Your task to perform on an android device: turn pop-ups on in chrome Image 0: 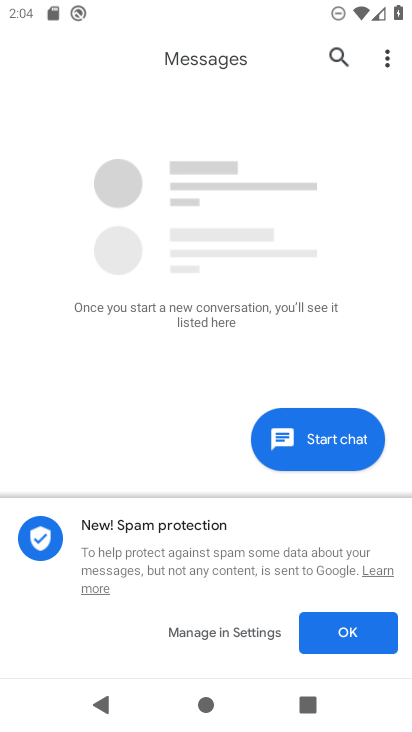
Step 0: press back button
Your task to perform on an android device: turn pop-ups on in chrome Image 1: 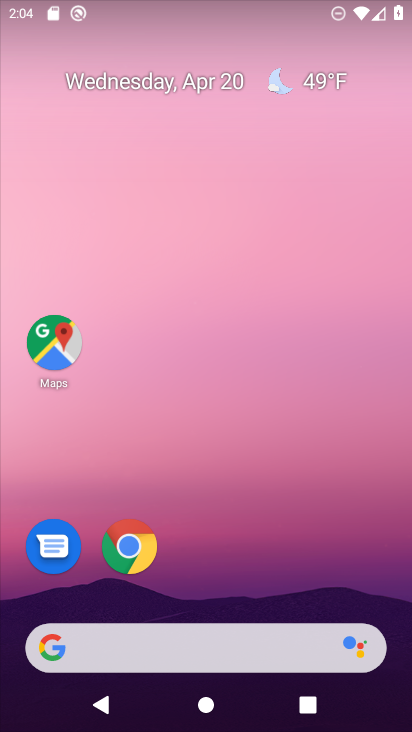
Step 1: click (134, 543)
Your task to perform on an android device: turn pop-ups on in chrome Image 2: 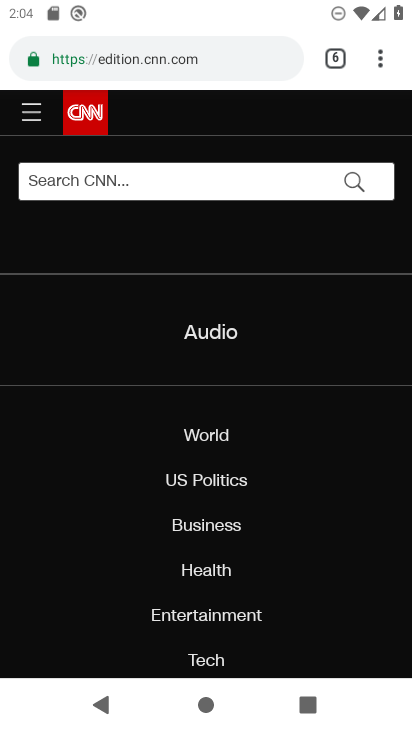
Step 2: click (378, 55)
Your task to perform on an android device: turn pop-ups on in chrome Image 3: 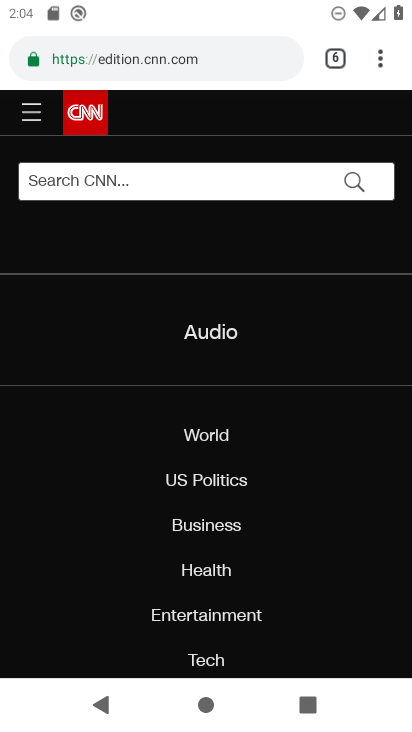
Step 3: drag from (384, 62) to (208, 559)
Your task to perform on an android device: turn pop-ups on in chrome Image 4: 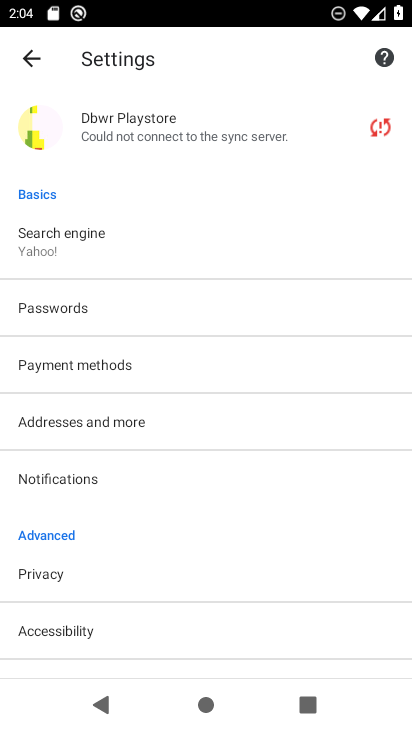
Step 4: drag from (137, 582) to (256, 70)
Your task to perform on an android device: turn pop-ups on in chrome Image 5: 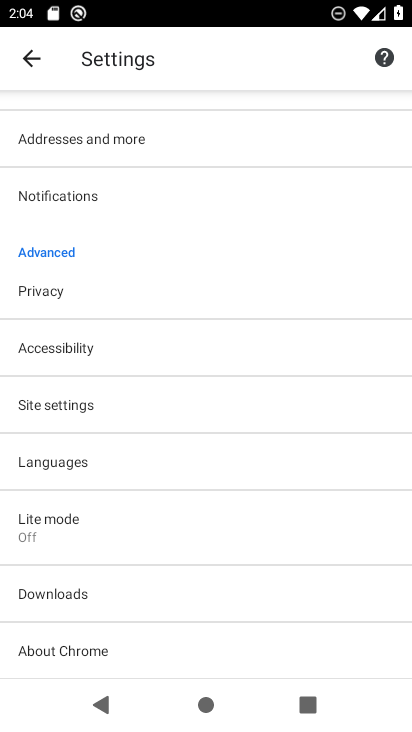
Step 5: click (114, 412)
Your task to perform on an android device: turn pop-ups on in chrome Image 6: 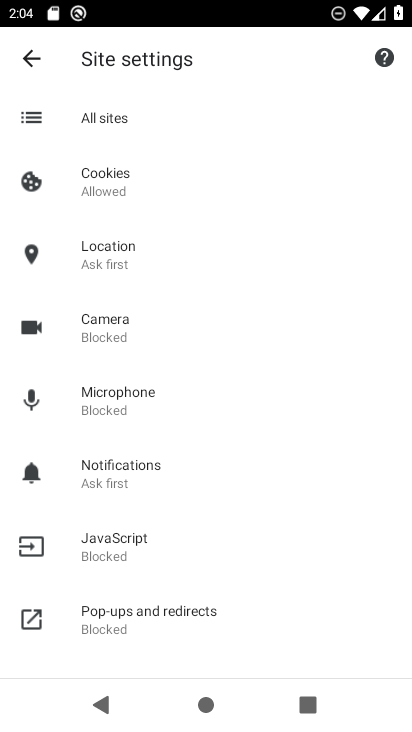
Step 6: click (178, 618)
Your task to perform on an android device: turn pop-ups on in chrome Image 7: 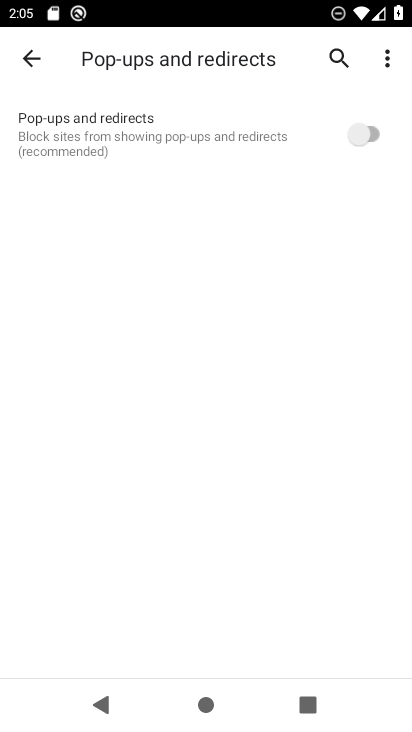
Step 7: click (370, 130)
Your task to perform on an android device: turn pop-ups on in chrome Image 8: 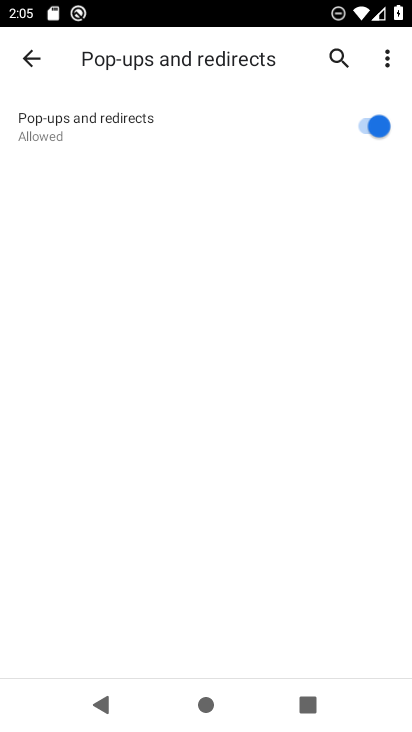
Step 8: task complete